Your task to perform on an android device: turn notification dots off Image 0: 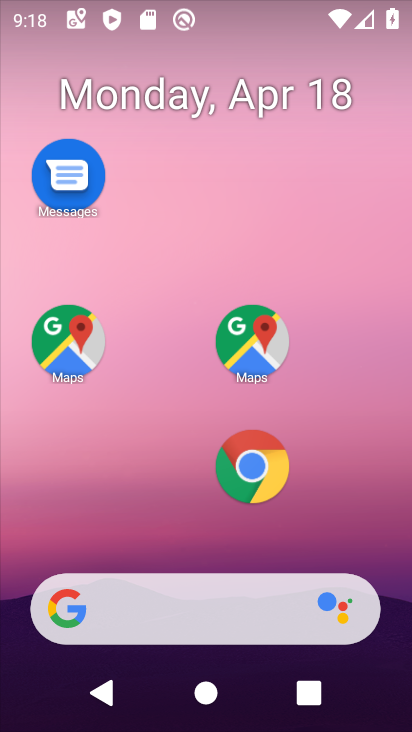
Step 0: drag from (177, 473) to (279, 10)
Your task to perform on an android device: turn notification dots off Image 1: 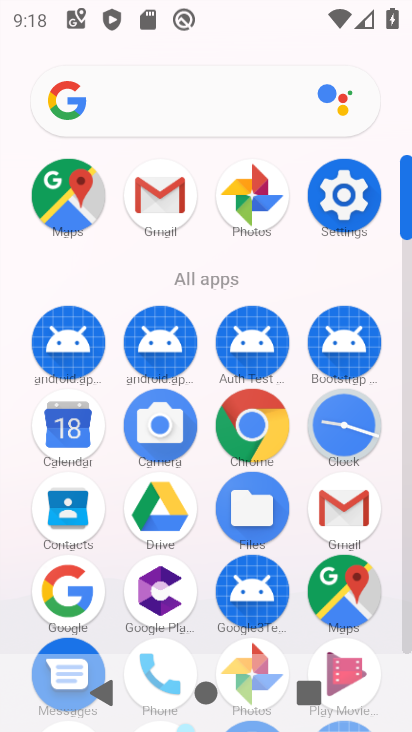
Step 1: click (354, 210)
Your task to perform on an android device: turn notification dots off Image 2: 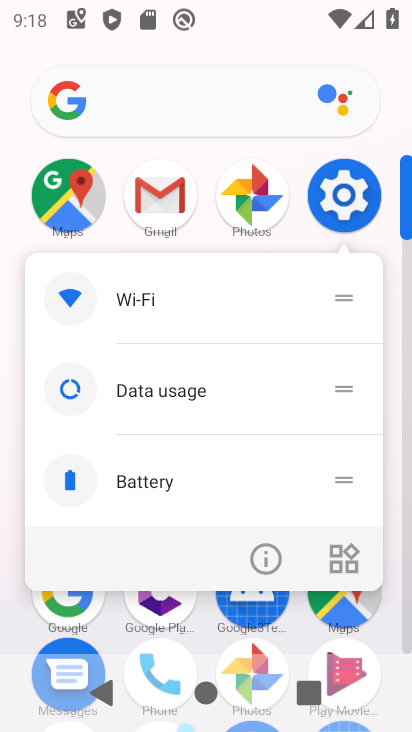
Step 2: click (338, 201)
Your task to perform on an android device: turn notification dots off Image 3: 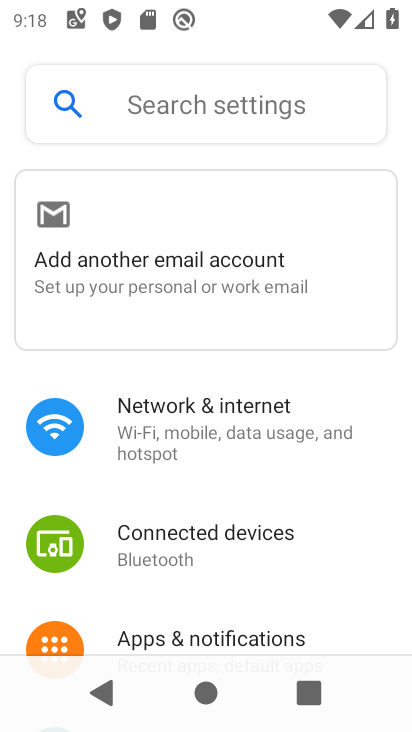
Step 3: click (191, 634)
Your task to perform on an android device: turn notification dots off Image 4: 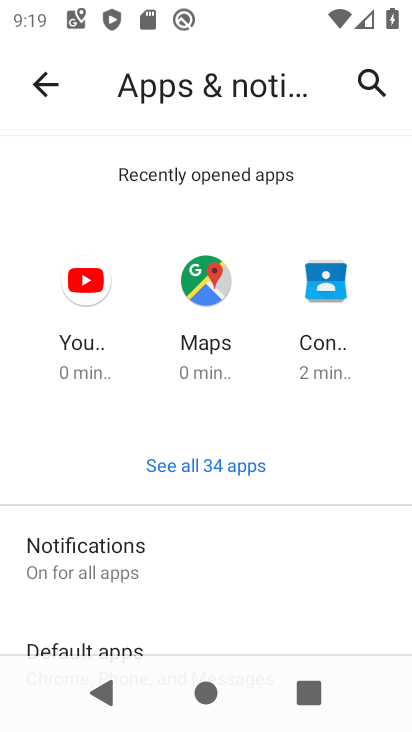
Step 4: click (121, 555)
Your task to perform on an android device: turn notification dots off Image 5: 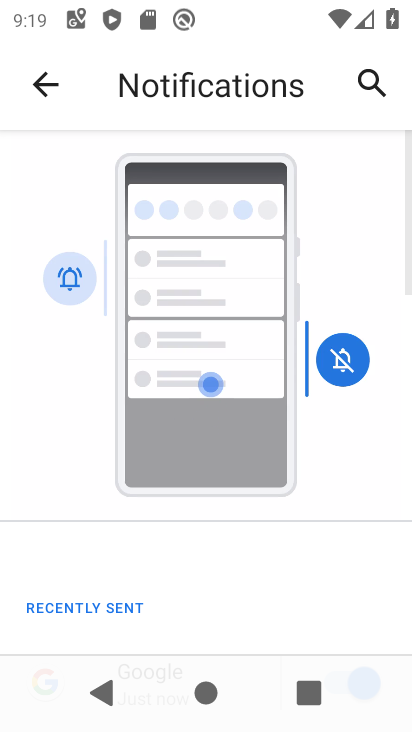
Step 5: drag from (231, 575) to (358, 11)
Your task to perform on an android device: turn notification dots off Image 6: 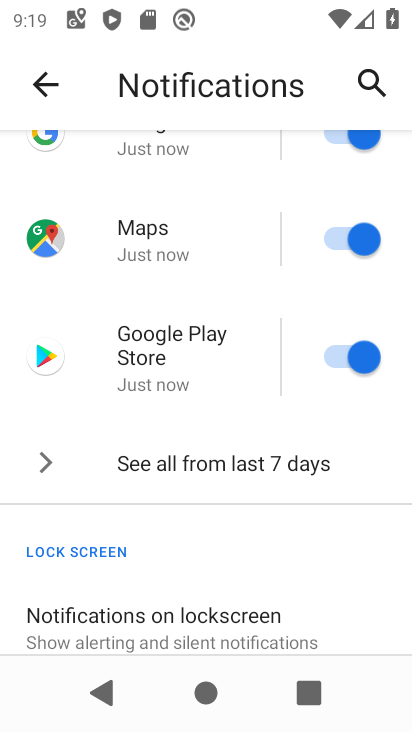
Step 6: drag from (176, 505) to (263, 166)
Your task to perform on an android device: turn notification dots off Image 7: 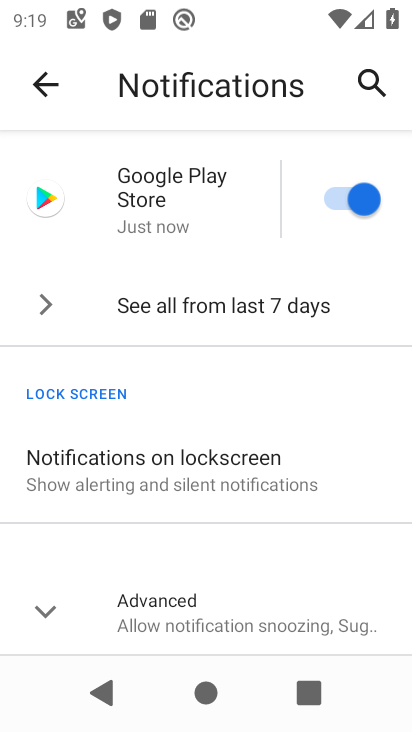
Step 7: click (164, 611)
Your task to perform on an android device: turn notification dots off Image 8: 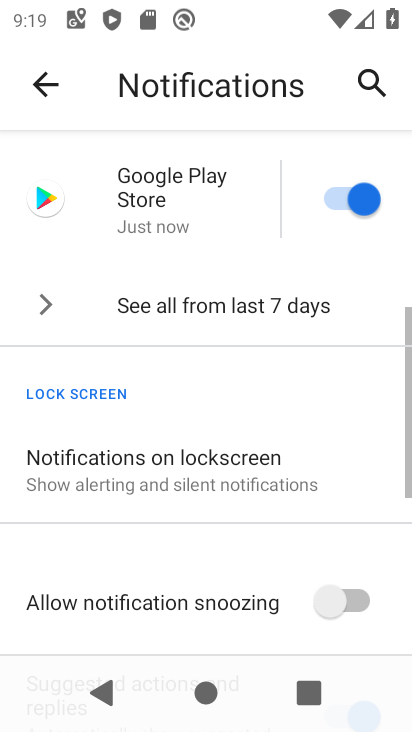
Step 8: drag from (186, 593) to (269, 99)
Your task to perform on an android device: turn notification dots off Image 9: 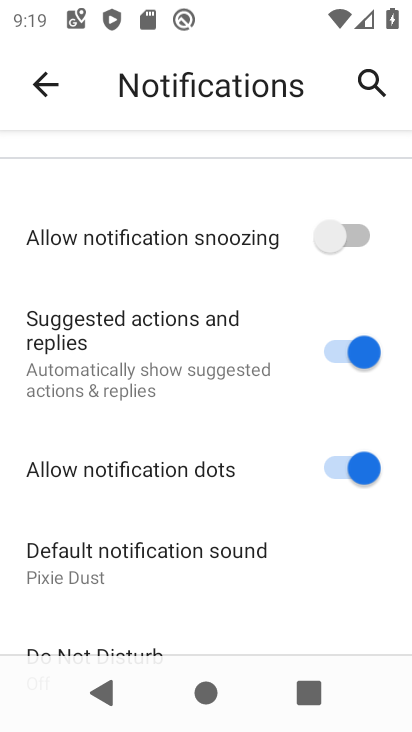
Step 9: click (334, 464)
Your task to perform on an android device: turn notification dots off Image 10: 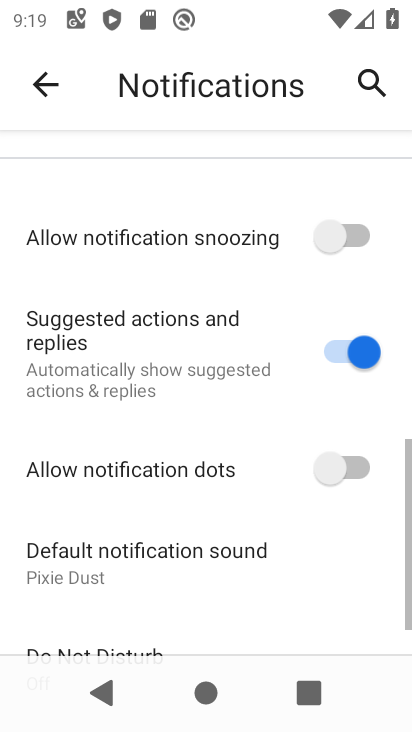
Step 10: task complete